Your task to perform on an android device: check out phone information Image 0: 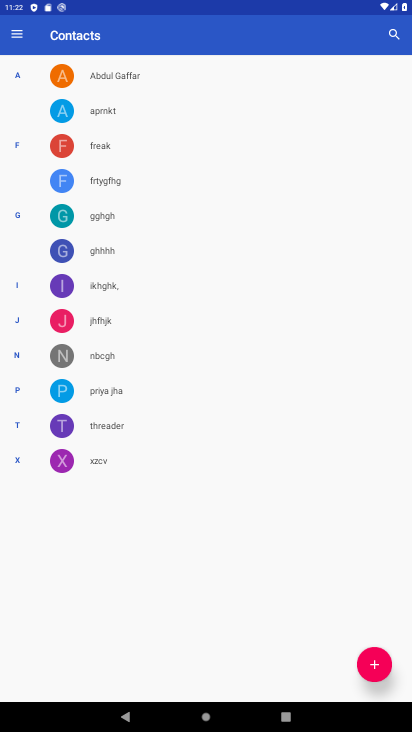
Step 0: press home button
Your task to perform on an android device: check out phone information Image 1: 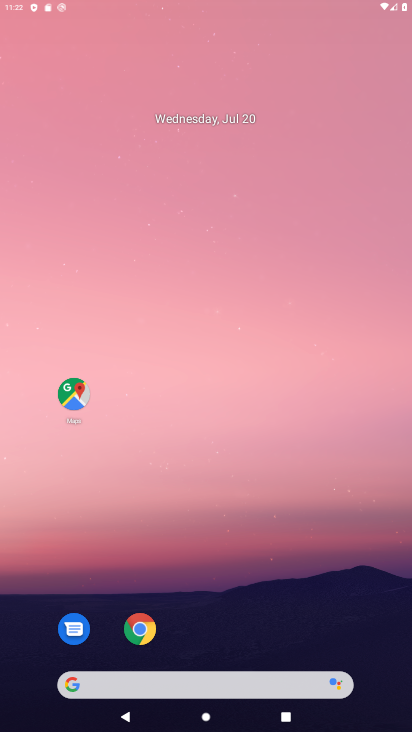
Step 1: drag from (189, 673) to (157, 4)
Your task to perform on an android device: check out phone information Image 2: 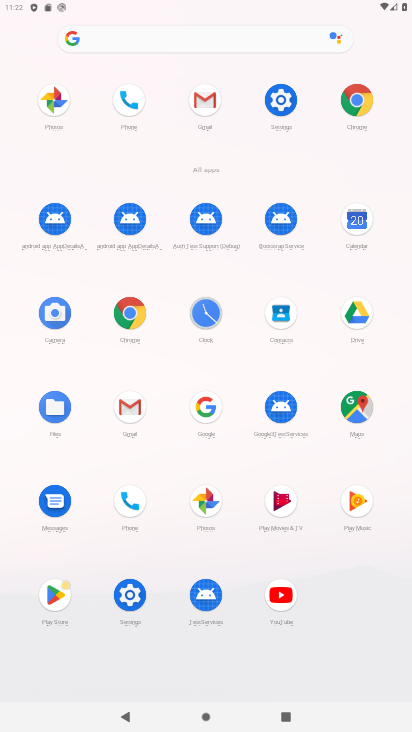
Step 2: click (284, 99)
Your task to perform on an android device: check out phone information Image 3: 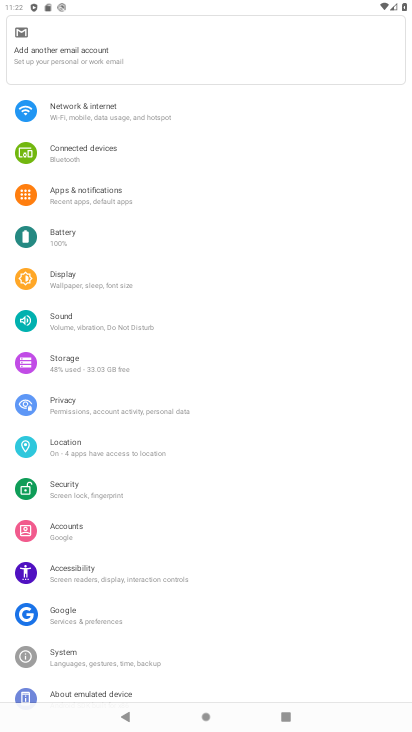
Step 3: click (124, 699)
Your task to perform on an android device: check out phone information Image 4: 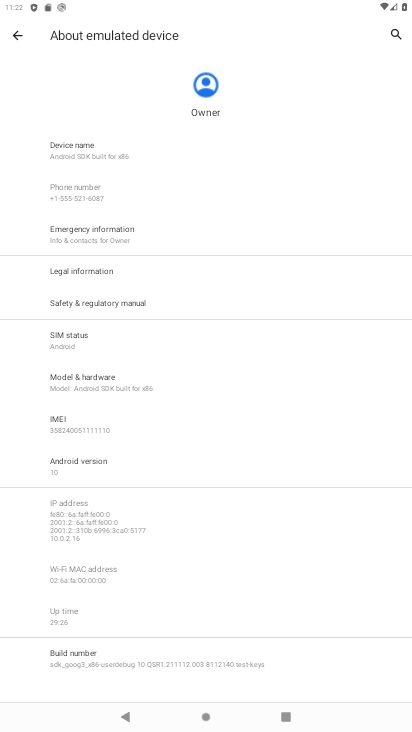
Step 4: task complete